Your task to perform on an android device: Search for shimano brake pads on Walmart Image 0: 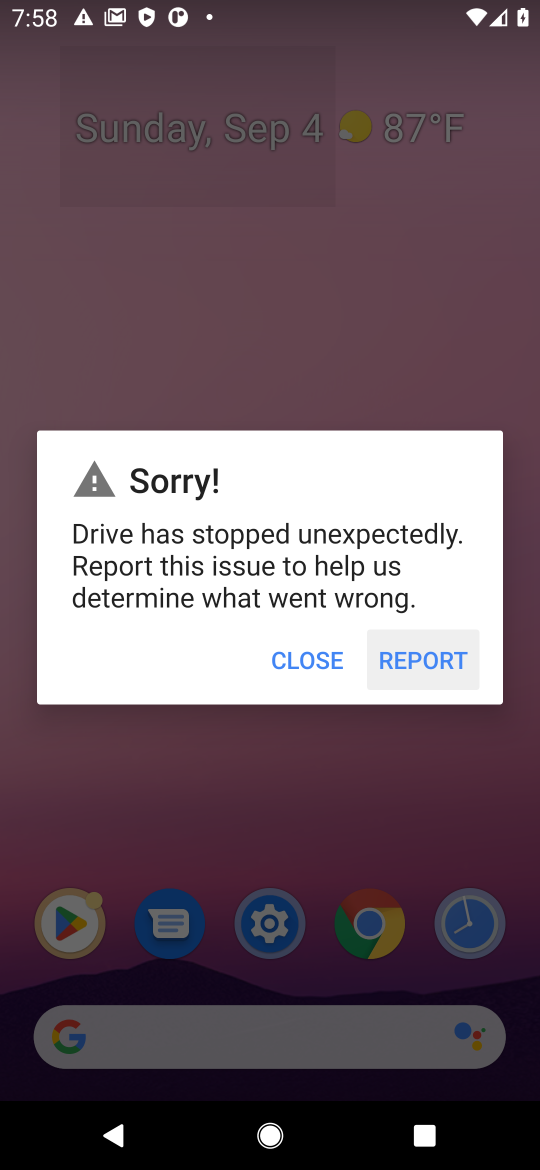
Step 0: press home button
Your task to perform on an android device: Search for shimano brake pads on Walmart Image 1: 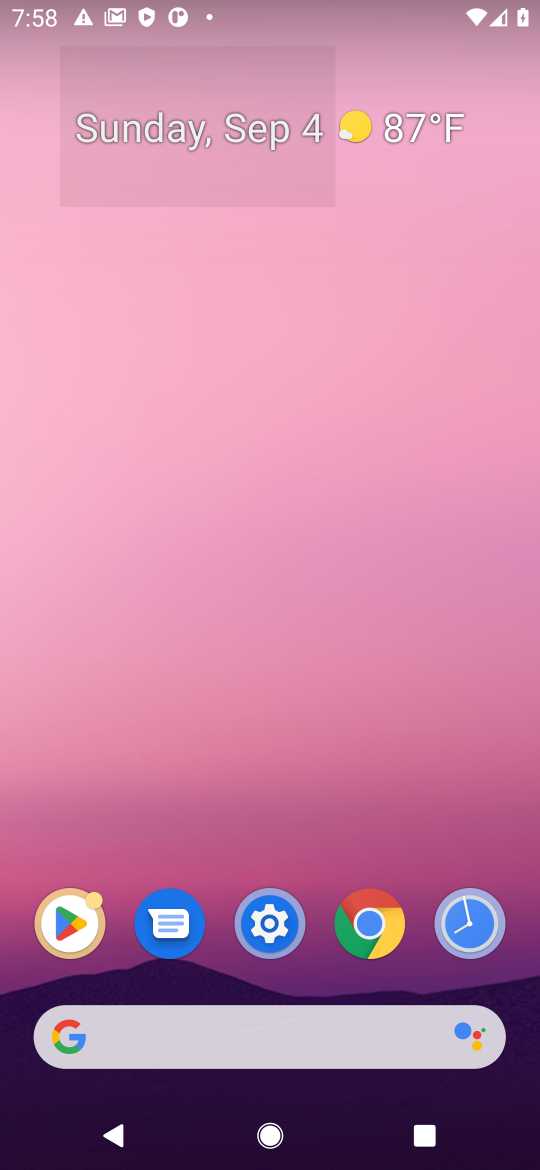
Step 1: click (366, 1023)
Your task to perform on an android device: Search for shimano brake pads on Walmart Image 2: 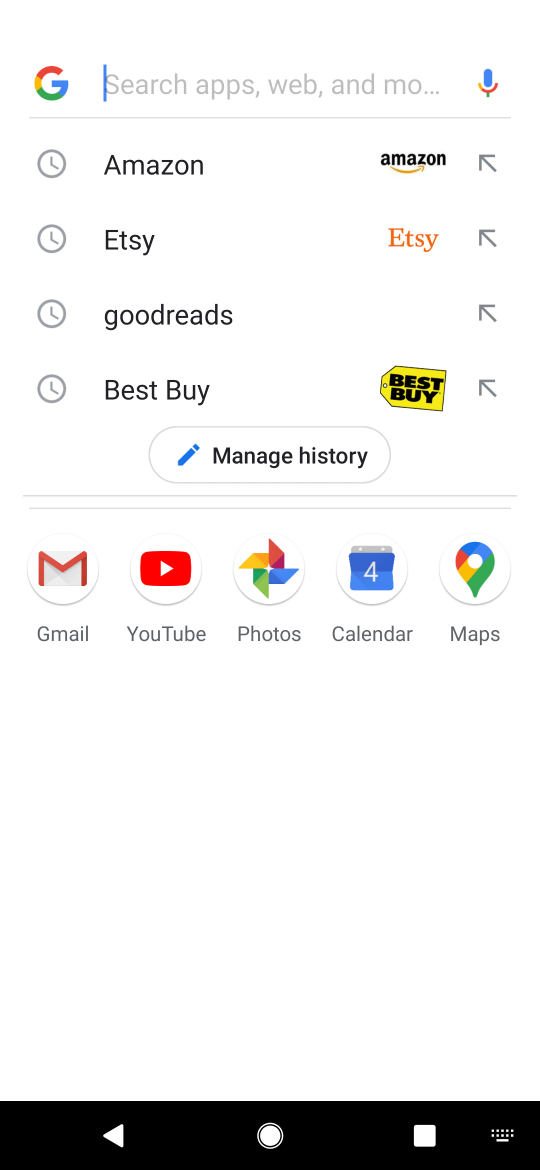
Step 2: press enter
Your task to perform on an android device: Search for shimano brake pads on Walmart Image 3: 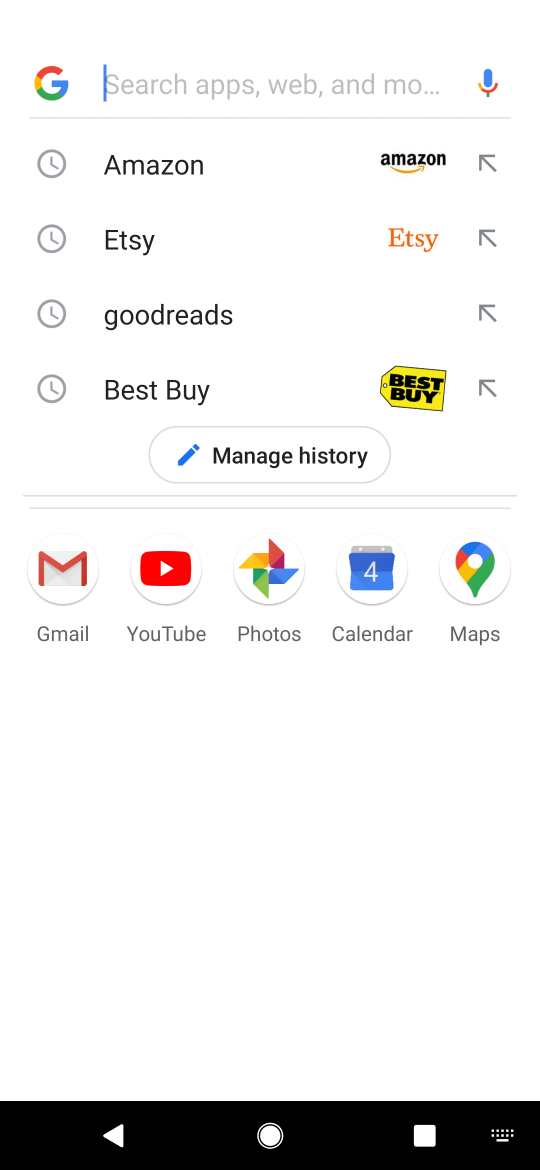
Step 3: type "walmart"
Your task to perform on an android device: Search for shimano brake pads on Walmart Image 4: 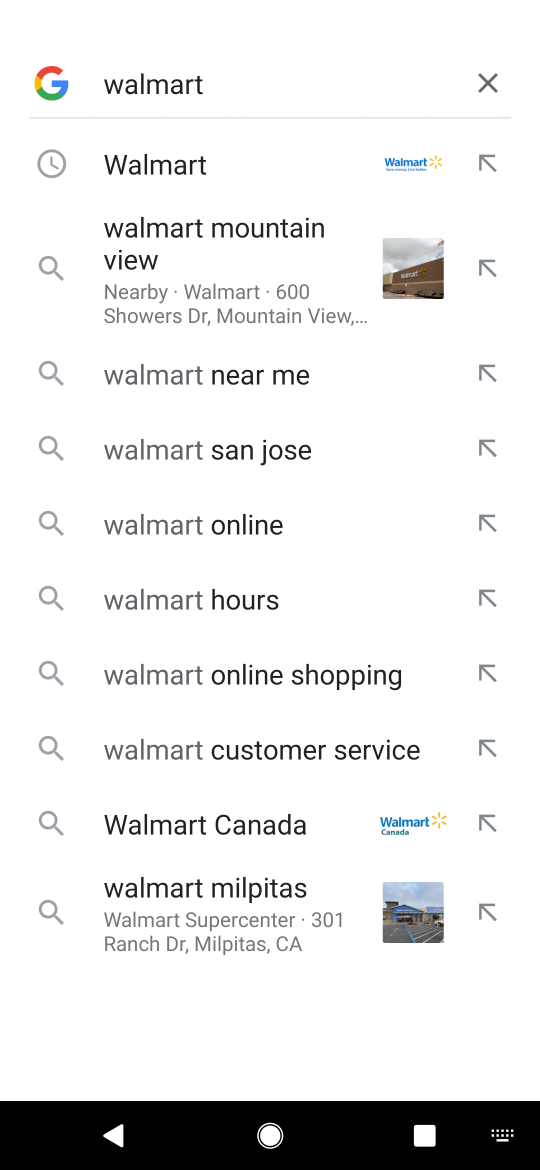
Step 4: click (208, 167)
Your task to perform on an android device: Search for shimano brake pads on Walmart Image 5: 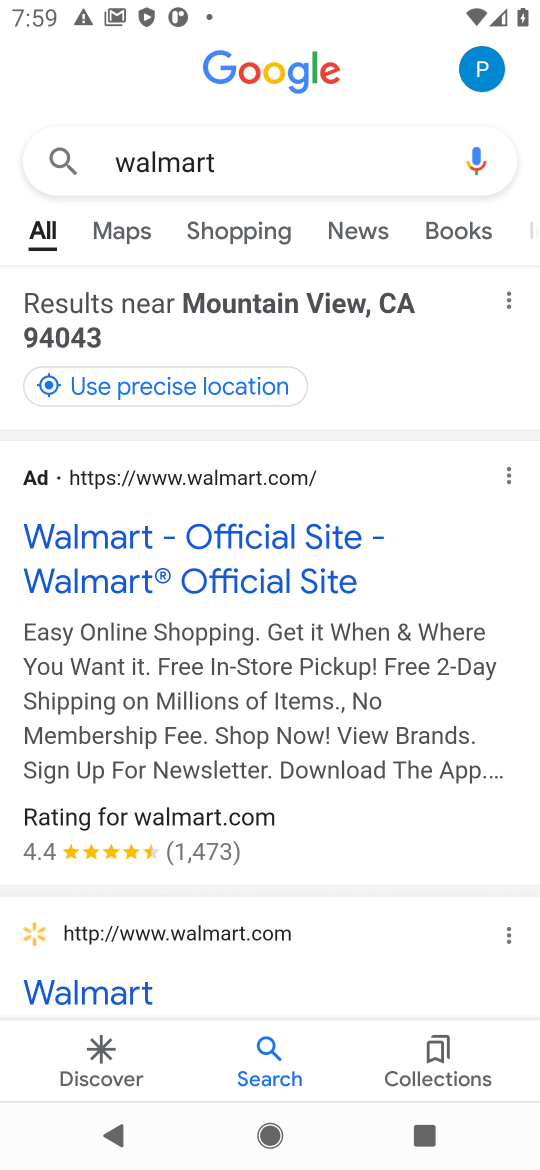
Step 5: click (236, 550)
Your task to perform on an android device: Search for shimano brake pads on Walmart Image 6: 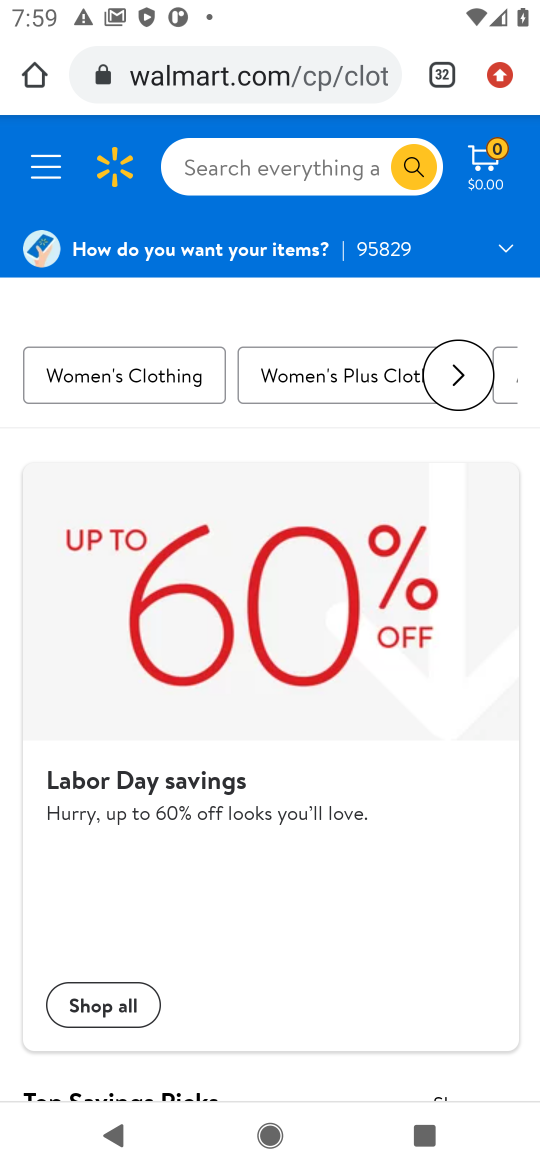
Step 6: click (241, 165)
Your task to perform on an android device: Search for shimano brake pads on Walmart Image 7: 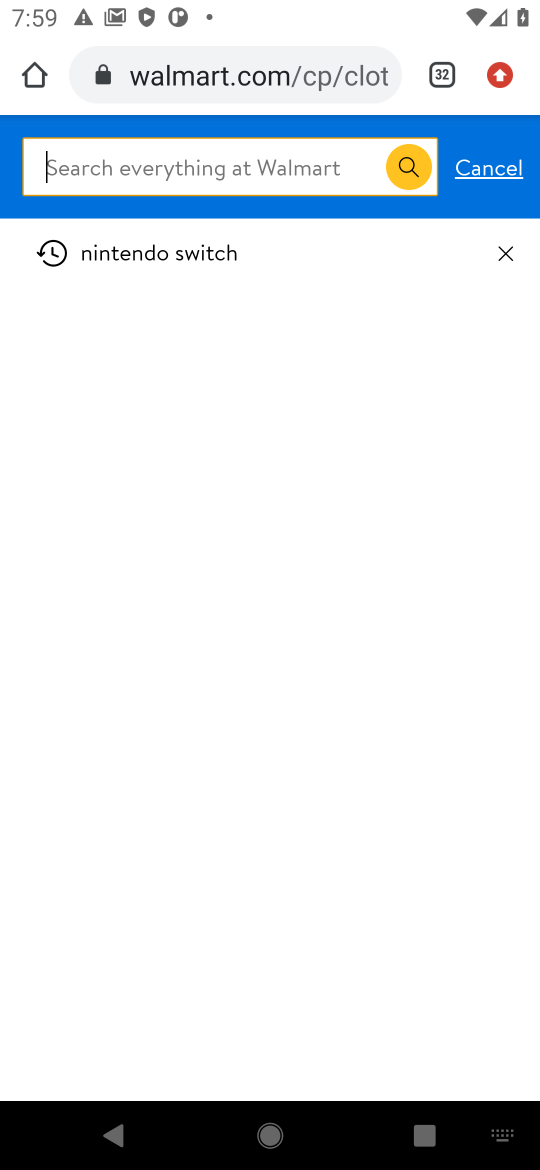
Step 7: press enter
Your task to perform on an android device: Search for shimano brake pads on Walmart Image 8: 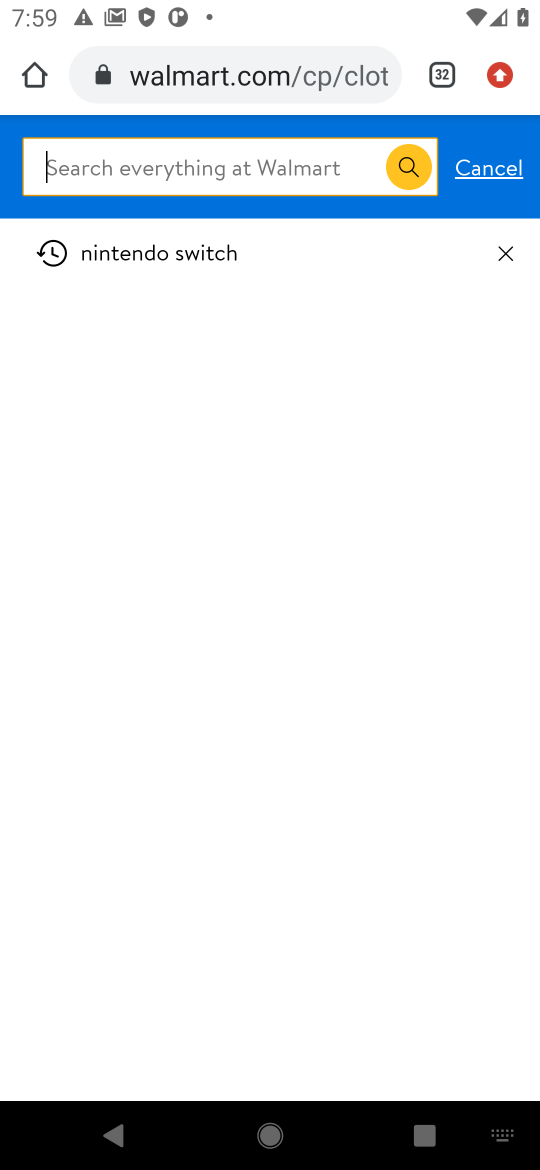
Step 8: type "shimano brake pads"
Your task to perform on an android device: Search for shimano brake pads on Walmart Image 9: 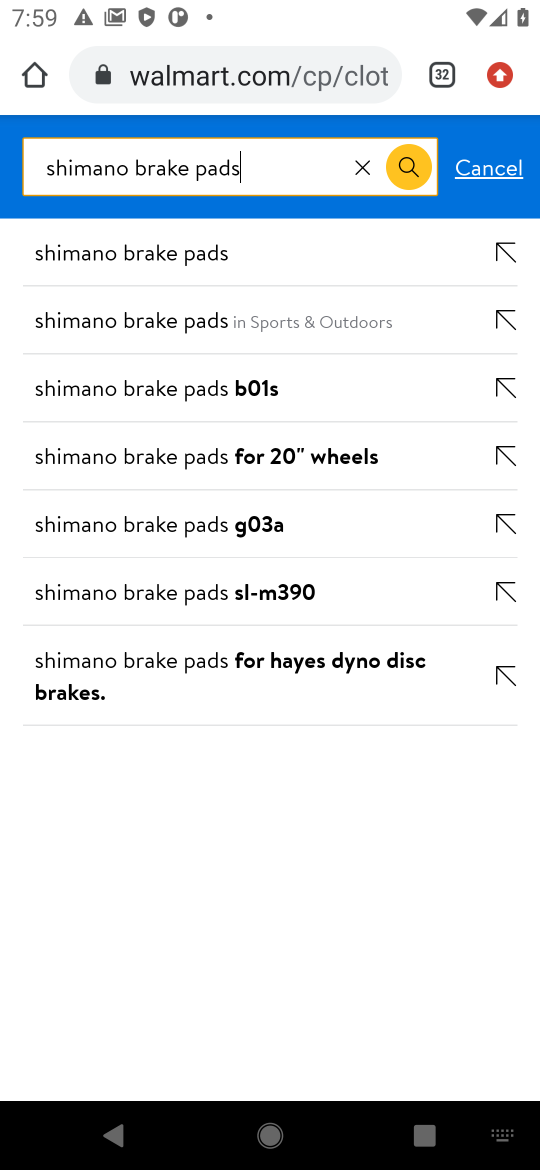
Step 9: click (191, 244)
Your task to perform on an android device: Search for shimano brake pads on Walmart Image 10: 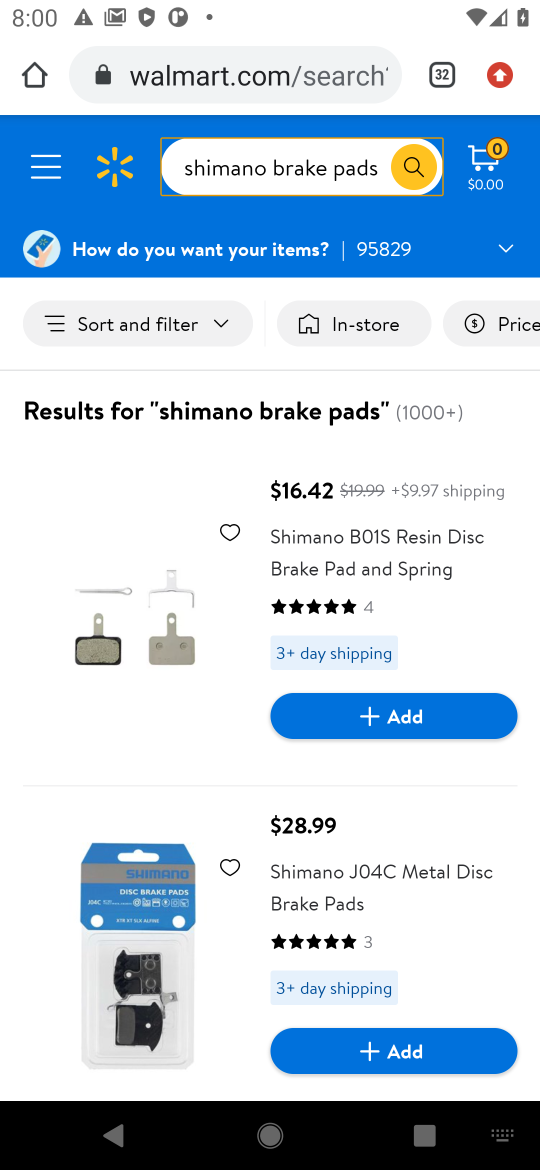
Step 10: task complete